Your task to perform on an android device: What's on my calendar today? Image 0: 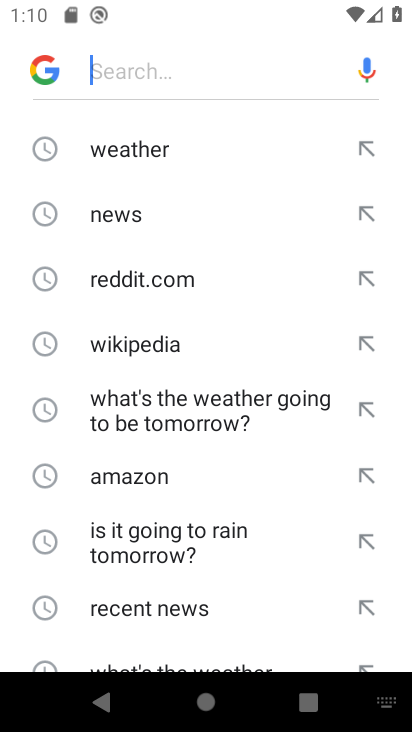
Step 0: press home button
Your task to perform on an android device: What's on my calendar today? Image 1: 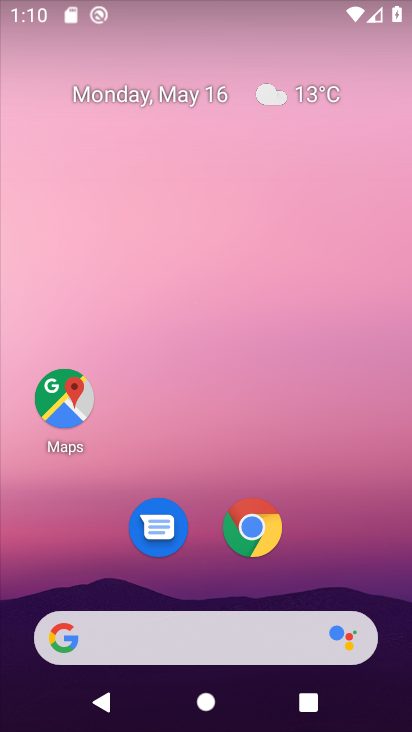
Step 1: drag from (194, 190) to (187, 84)
Your task to perform on an android device: What's on my calendar today? Image 2: 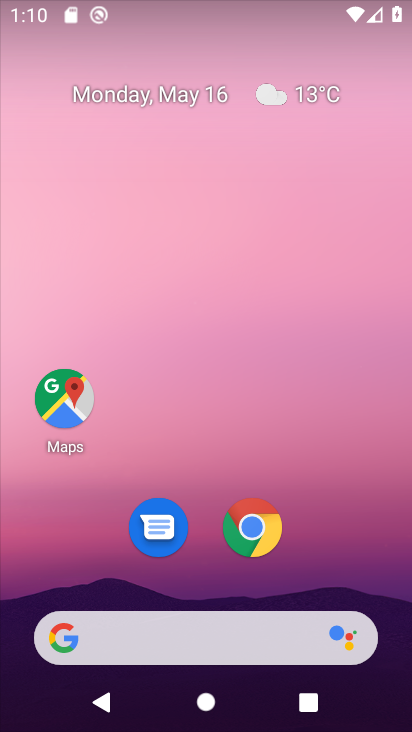
Step 2: drag from (357, 542) to (241, 88)
Your task to perform on an android device: What's on my calendar today? Image 3: 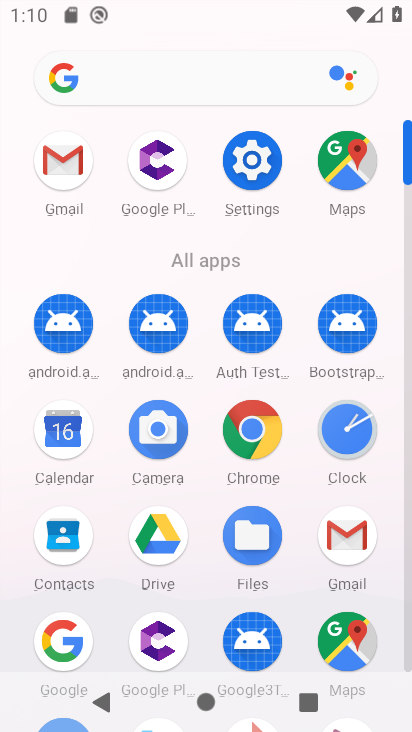
Step 3: drag from (211, 261) to (198, 43)
Your task to perform on an android device: What's on my calendar today? Image 4: 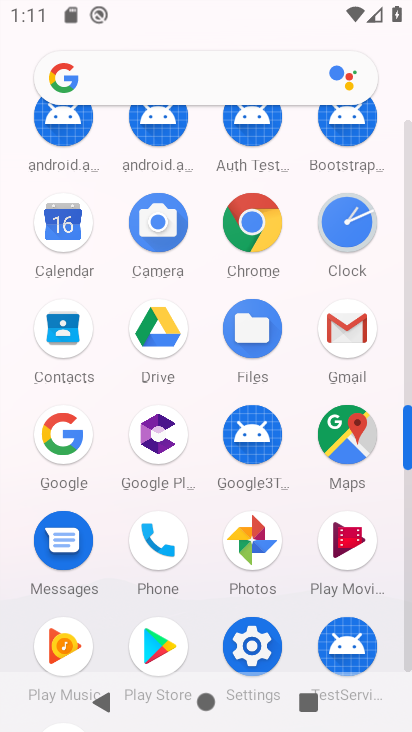
Step 4: click (61, 225)
Your task to perform on an android device: What's on my calendar today? Image 5: 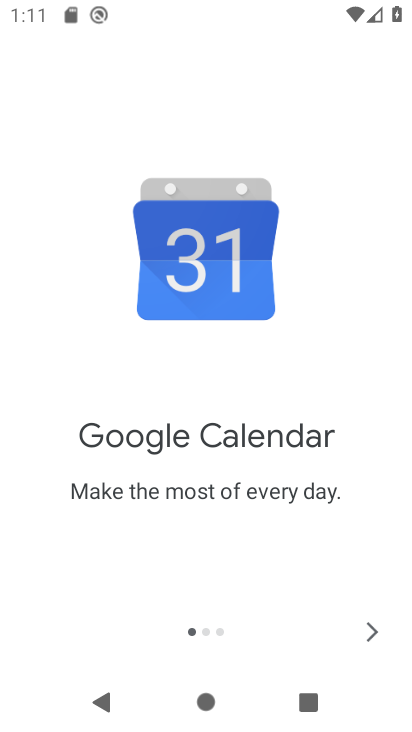
Step 5: click (371, 627)
Your task to perform on an android device: What's on my calendar today? Image 6: 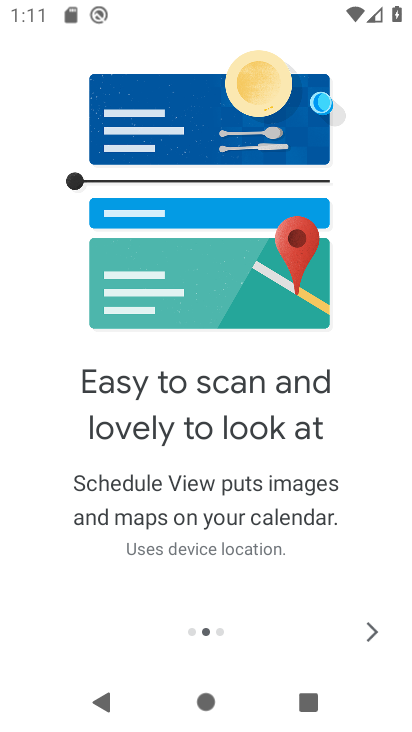
Step 6: click (371, 627)
Your task to perform on an android device: What's on my calendar today? Image 7: 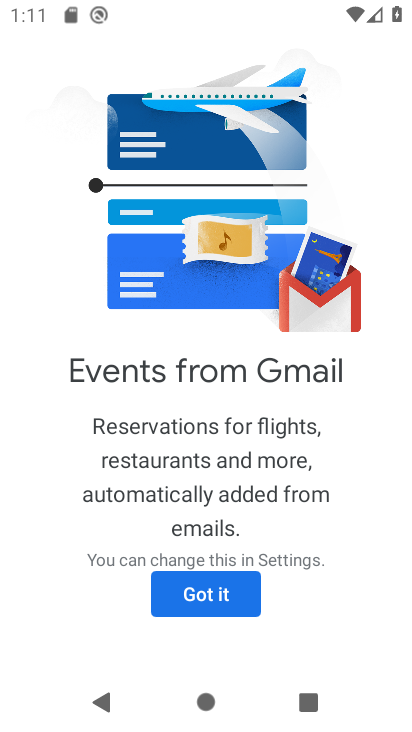
Step 7: click (211, 601)
Your task to perform on an android device: What's on my calendar today? Image 8: 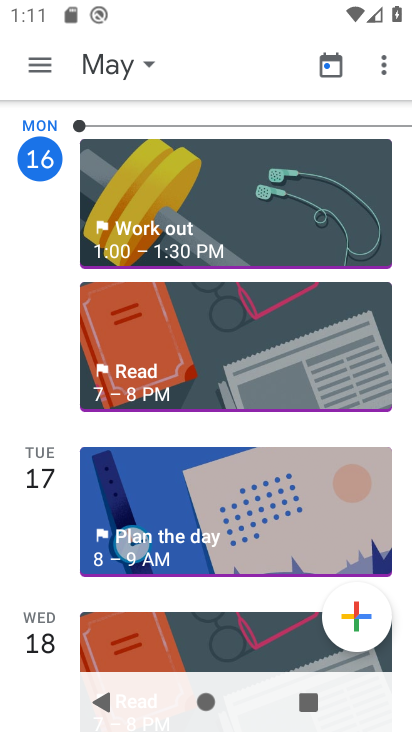
Step 8: click (99, 54)
Your task to perform on an android device: What's on my calendar today? Image 9: 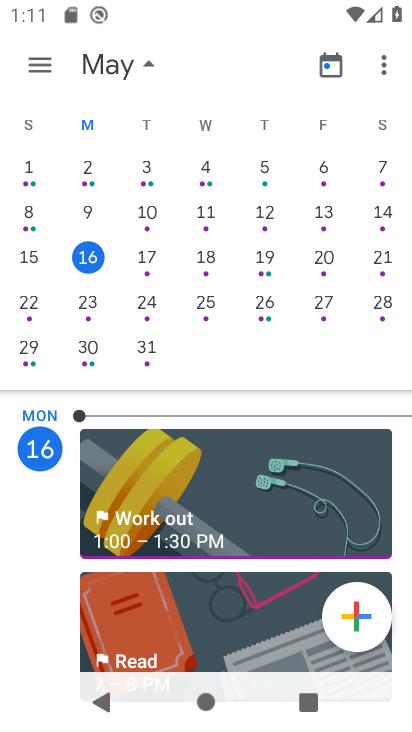
Step 9: click (90, 255)
Your task to perform on an android device: What's on my calendar today? Image 10: 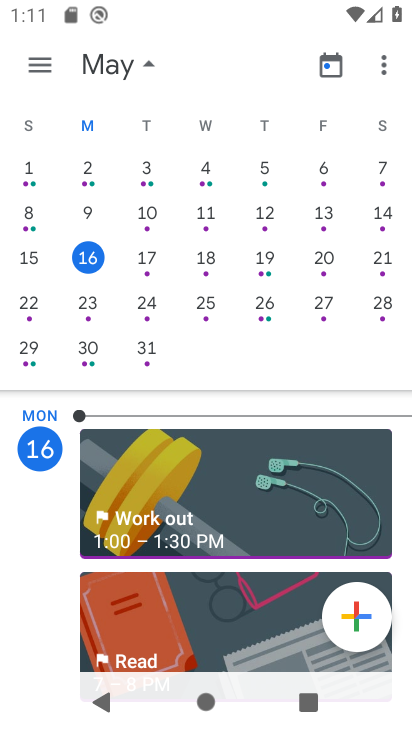
Step 10: task complete